Your task to perform on an android device: check google app version Image 0: 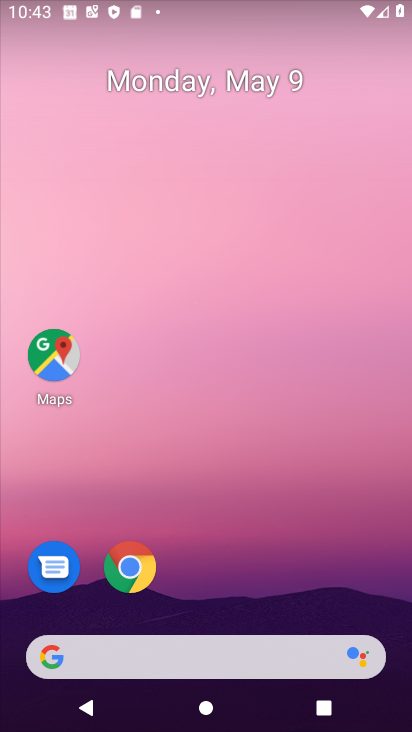
Step 0: drag from (184, 647) to (117, 141)
Your task to perform on an android device: check google app version Image 1: 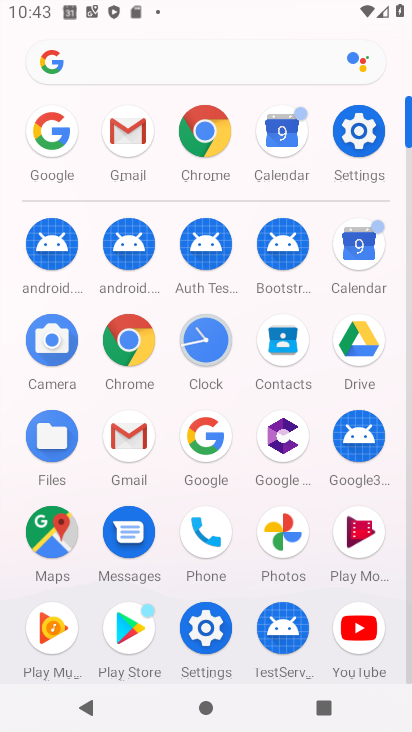
Step 1: click (203, 442)
Your task to perform on an android device: check google app version Image 2: 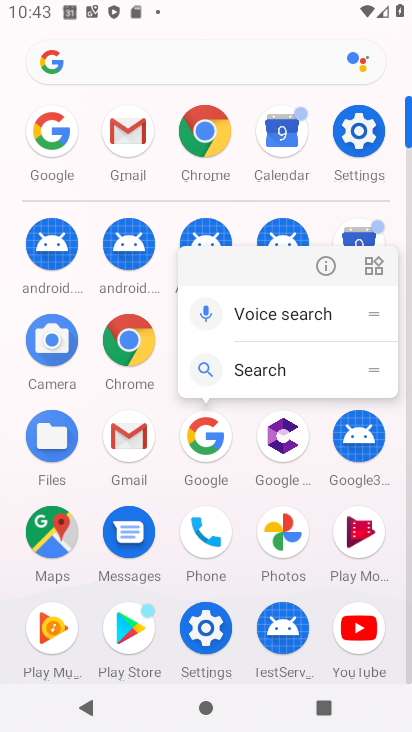
Step 2: click (331, 268)
Your task to perform on an android device: check google app version Image 3: 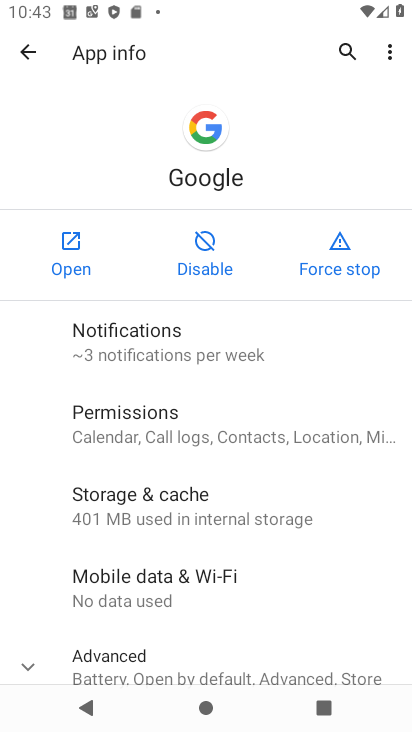
Step 3: drag from (171, 663) to (102, 217)
Your task to perform on an android device: check google app version Image 4: 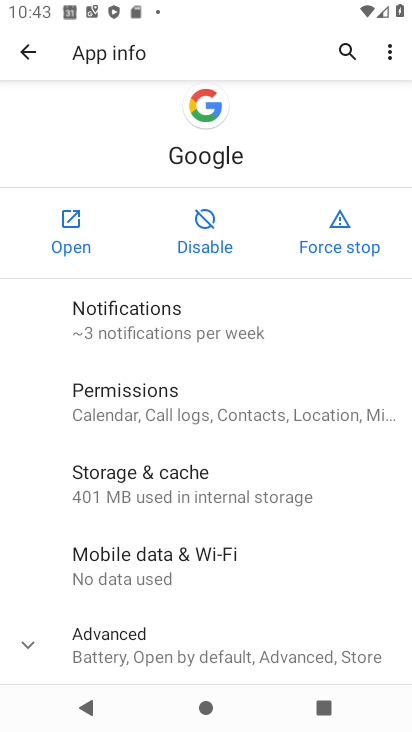
Step 4: click (127, 654)
Your task to perform on an android device: check google app version Image 5: 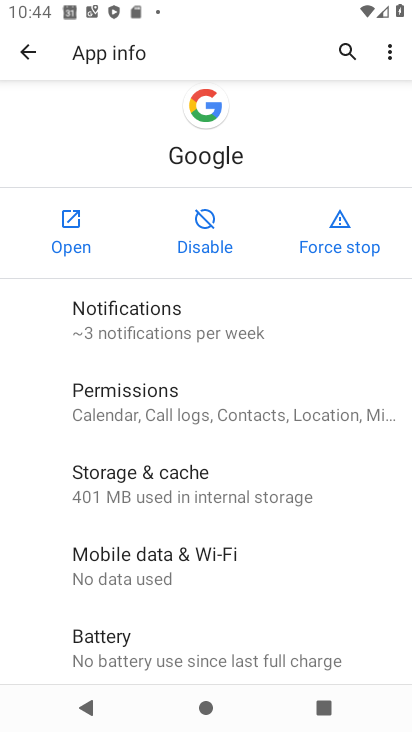
Step 5: task complete